Your task to perform on an android device: install app "Spotify" Image 0: 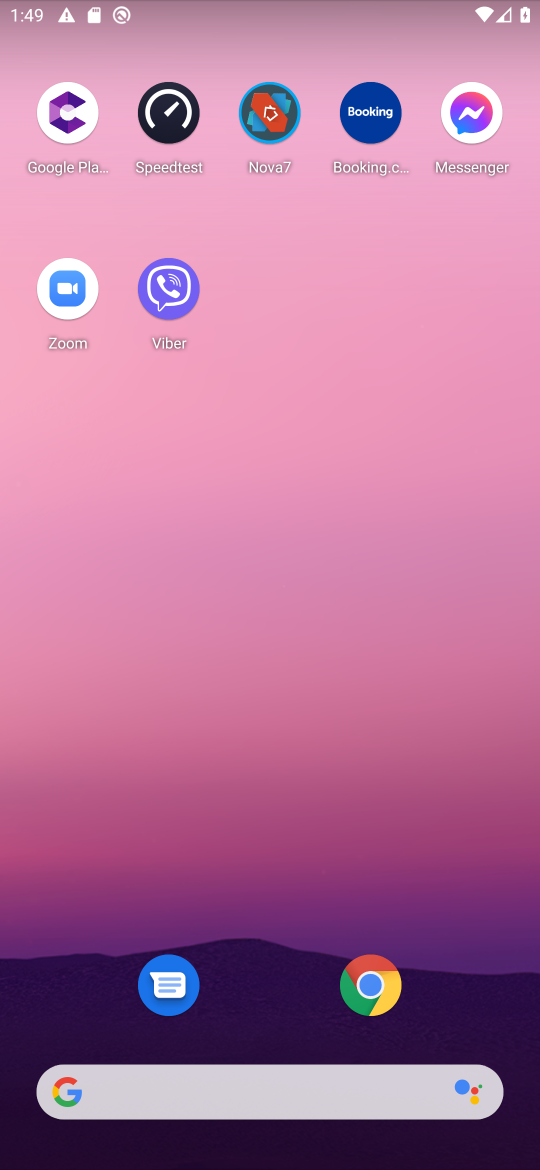
Step 0: drag from (273, 1140) to (307, 381)
Your task to perform on an android device: install app "Spotify" Image 1: 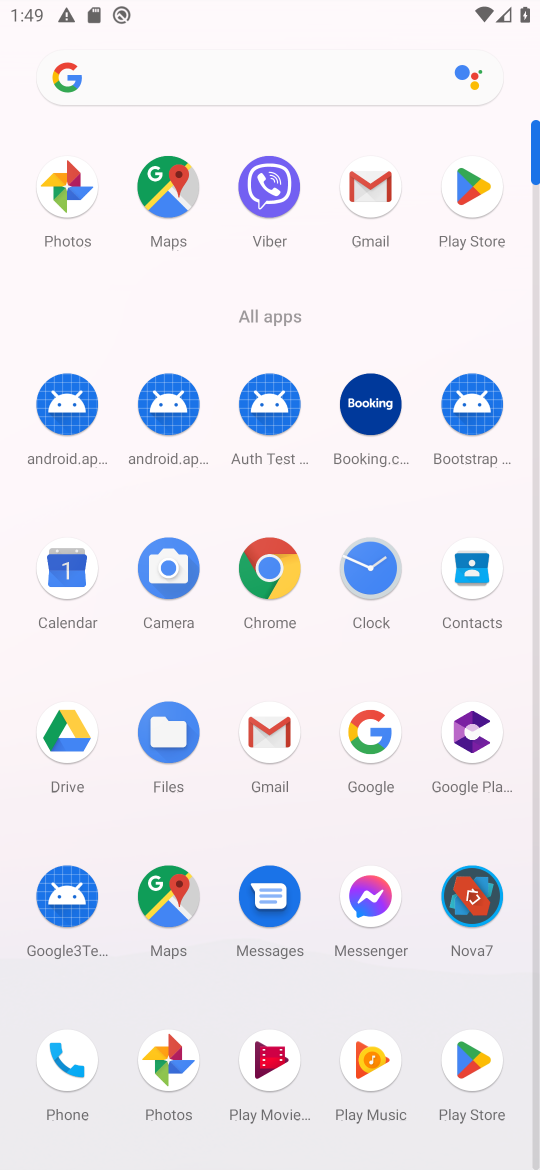
Step 1: click (477, 1047)
Your task to perform on an android device: install app "Spotify" Image 2: 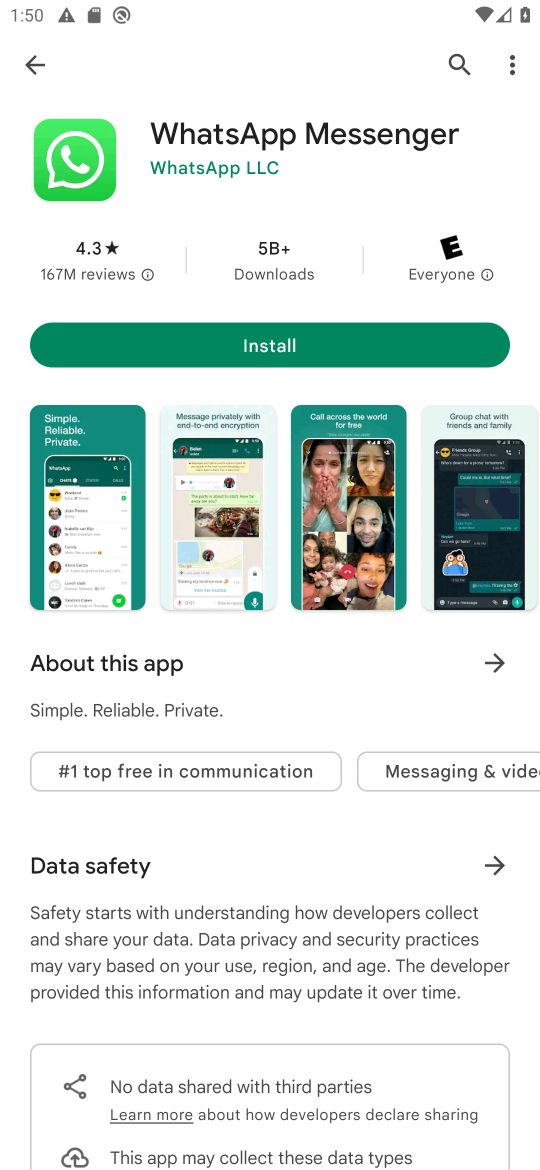
Step 2: click (460, 68)
Your task to perform on an android device: install app "Spotify" Image 3: 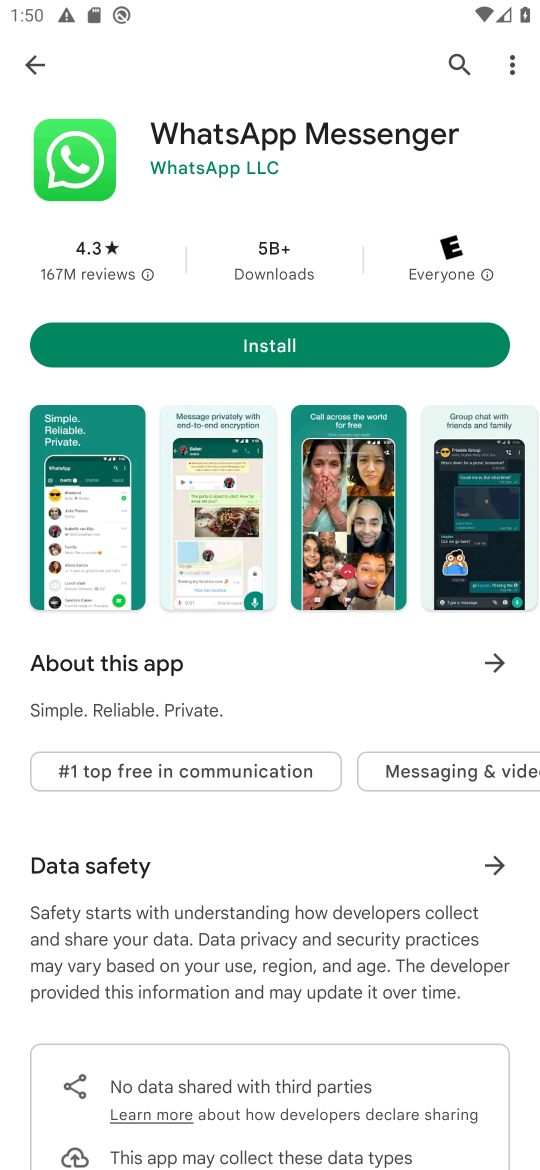
Step 3: click (465, 50)
Your task to perform on an android device: install app "Spotify" Image 4: 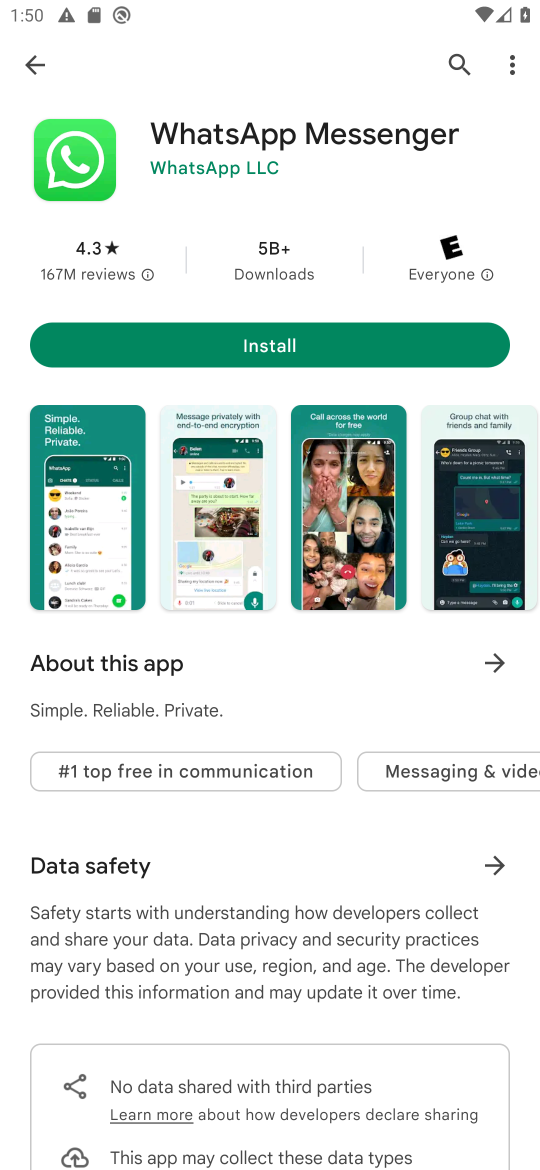
Step 4: click (456, 64)
Your task to perform on an android device: install app "Spotify" Image 5: 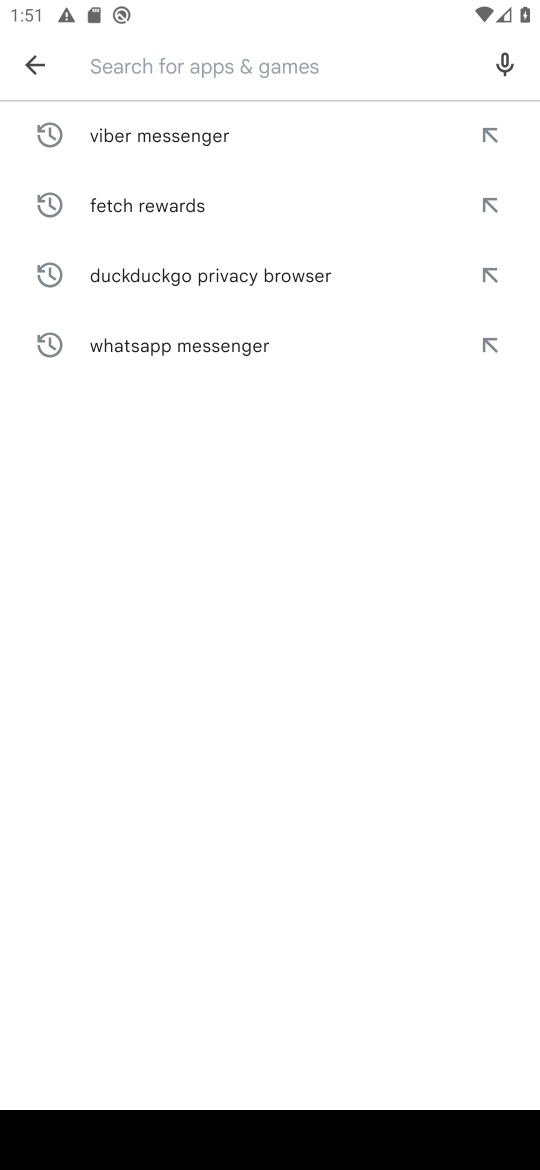
Step 5: type "spotify"
Your task to perform on an android device: install app "Spotify" Image 6: 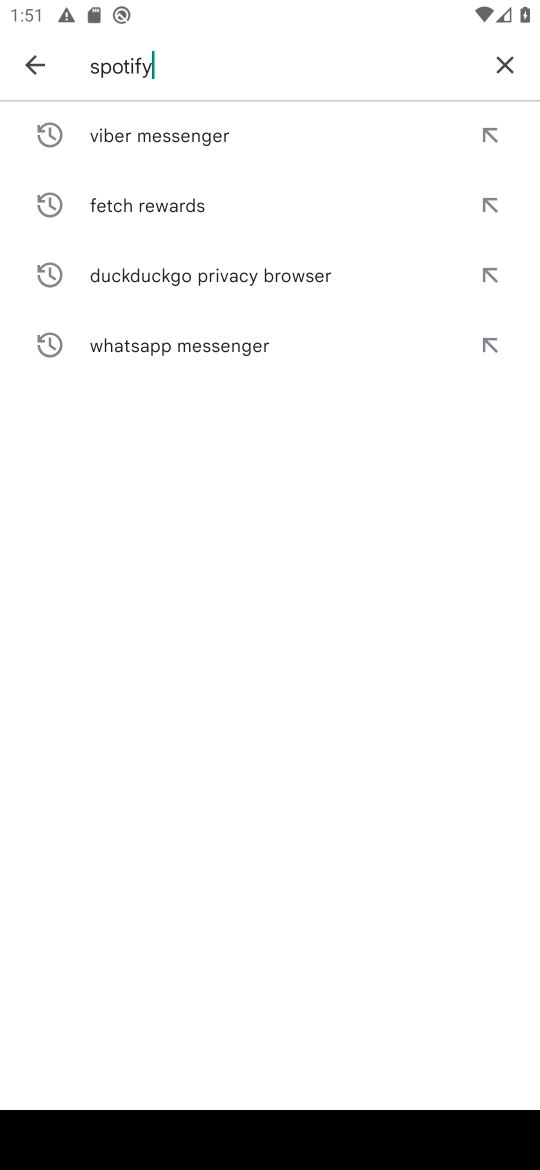
Step 6: type ""
Your task to perform on an android device: install app "Spotify" Image 7: 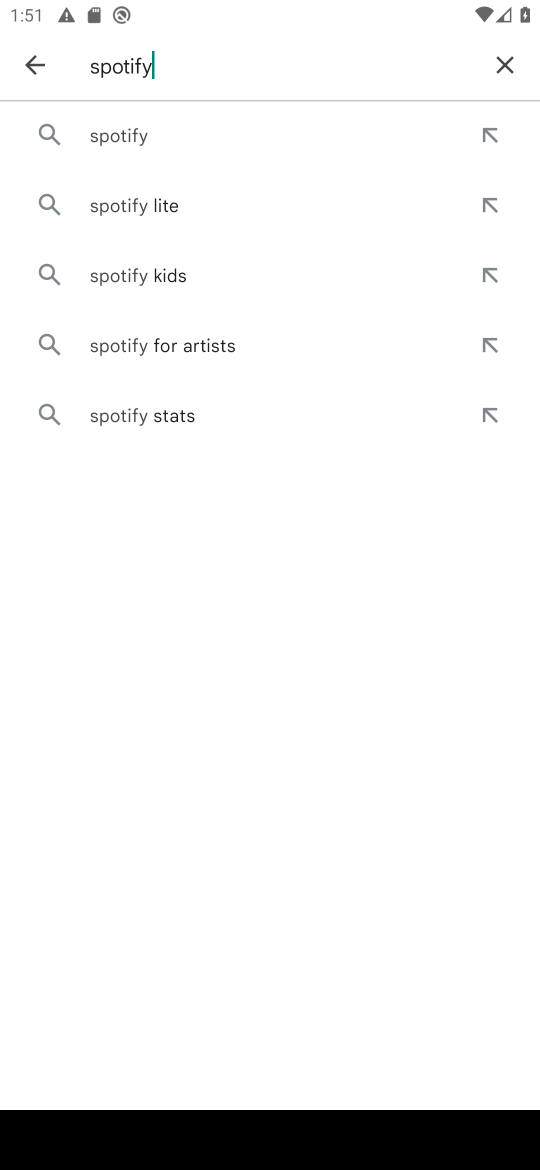
Step 7: click (117, 134)
Your task to perform on an android device: install app "Spotify" Image 8: 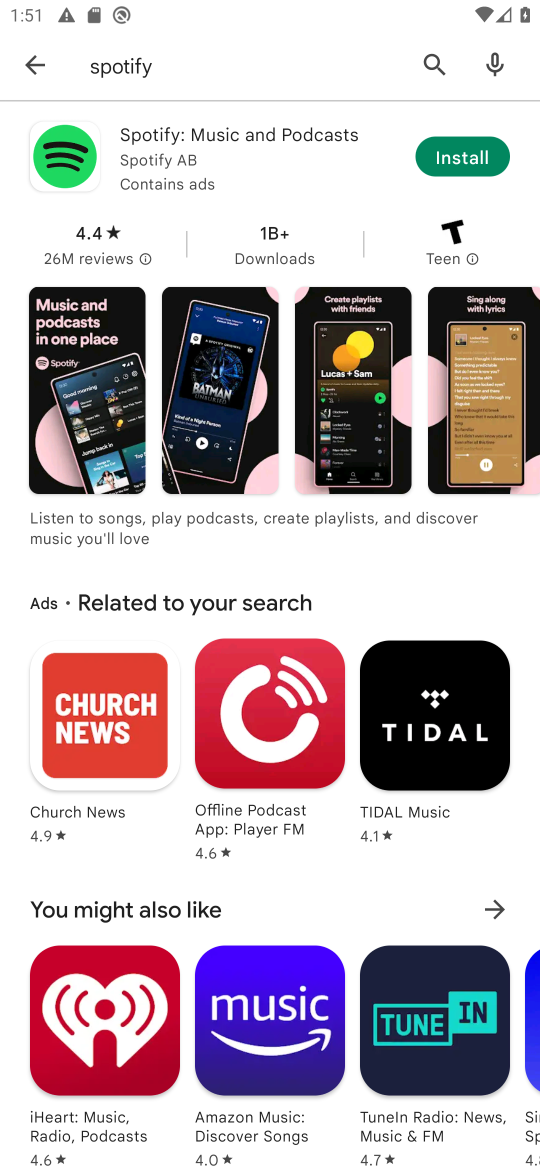
Step 8: click (461, 155)
Your task to perform on an android device: install app "Spotify" Image 9: 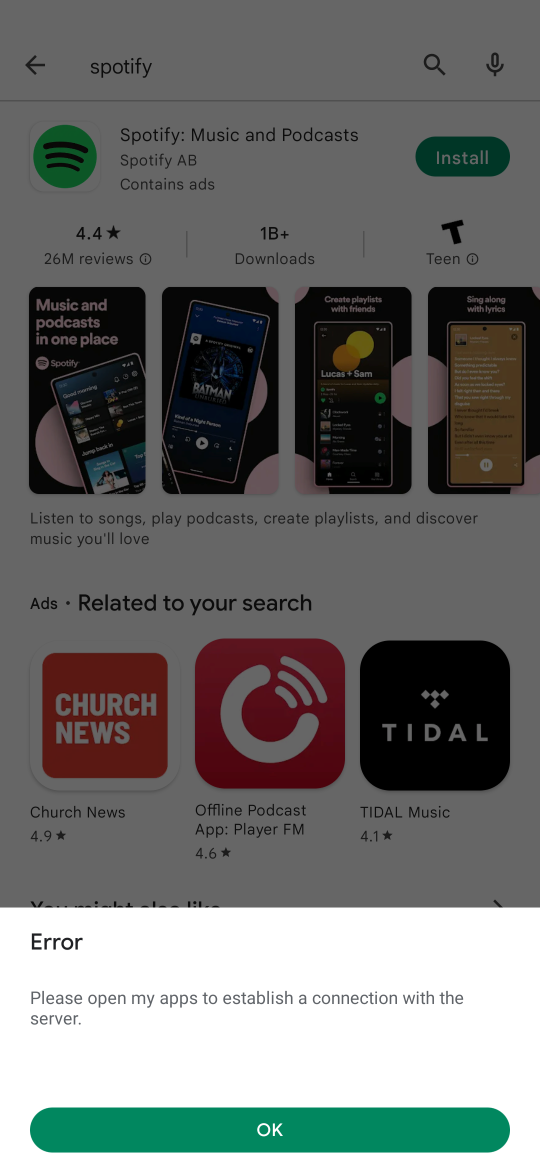
Step 9: click (277, 1124)
Your task to perform on an android device: install app "Spotify" Image 10: 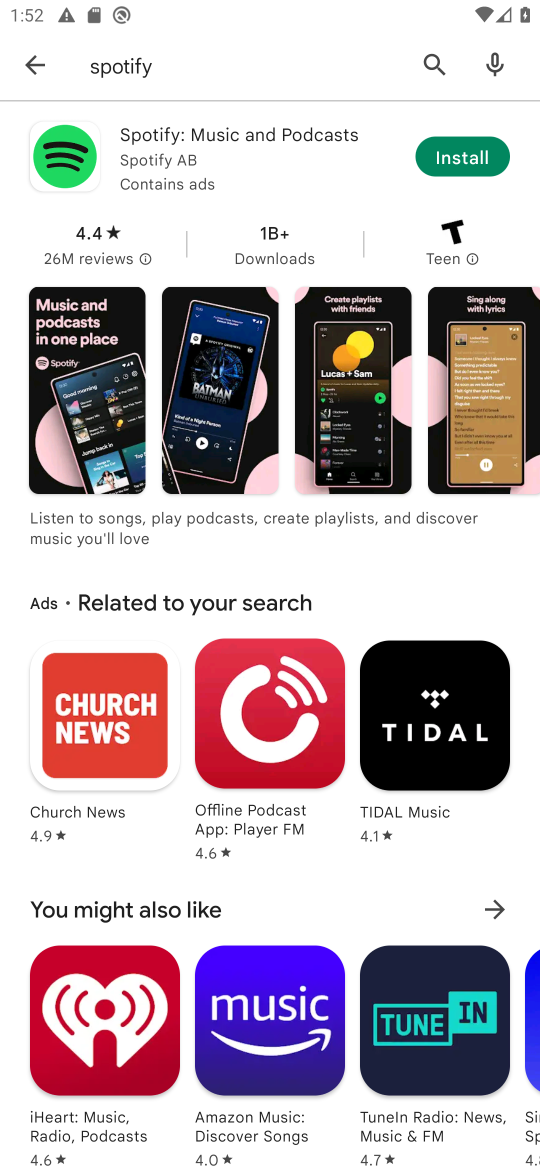
Step 10: click (464, 155)
Your task to perform on an android device: install app "Spotify" Image 11: 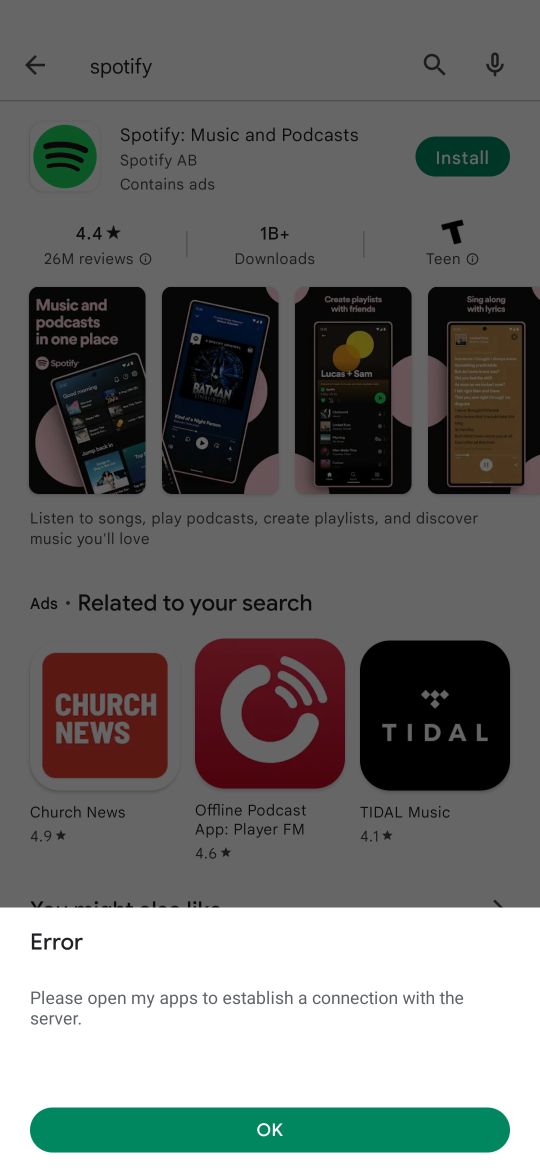
Step 11: click (297, 1137)
Your task to perform on an android device: install app "Spotify" Image 12: 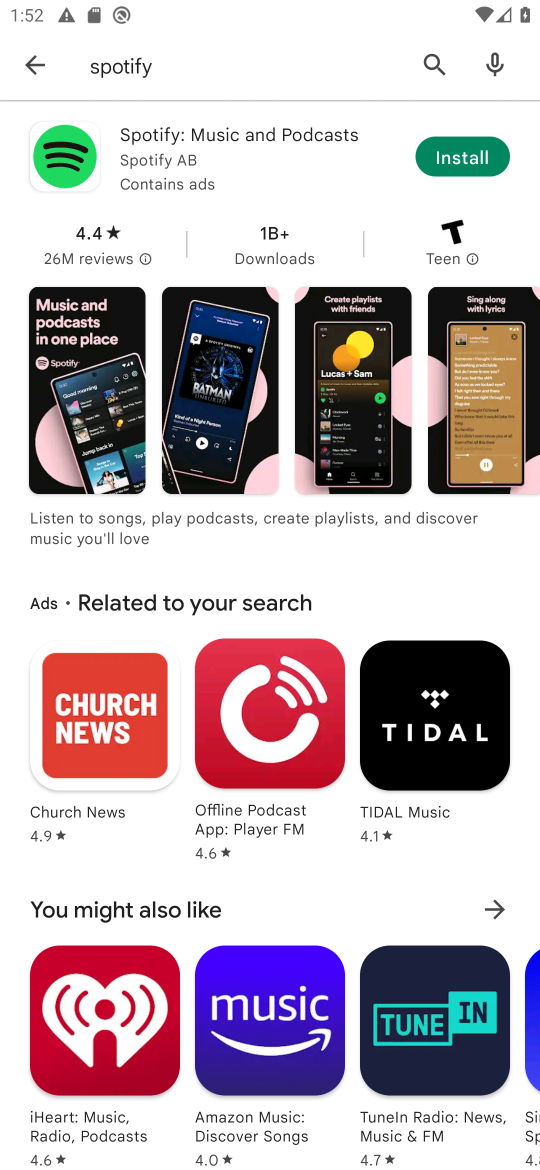
Step 12: click (478, 154)
Your task to perform on an android device: install app "Spotify" Image 13: 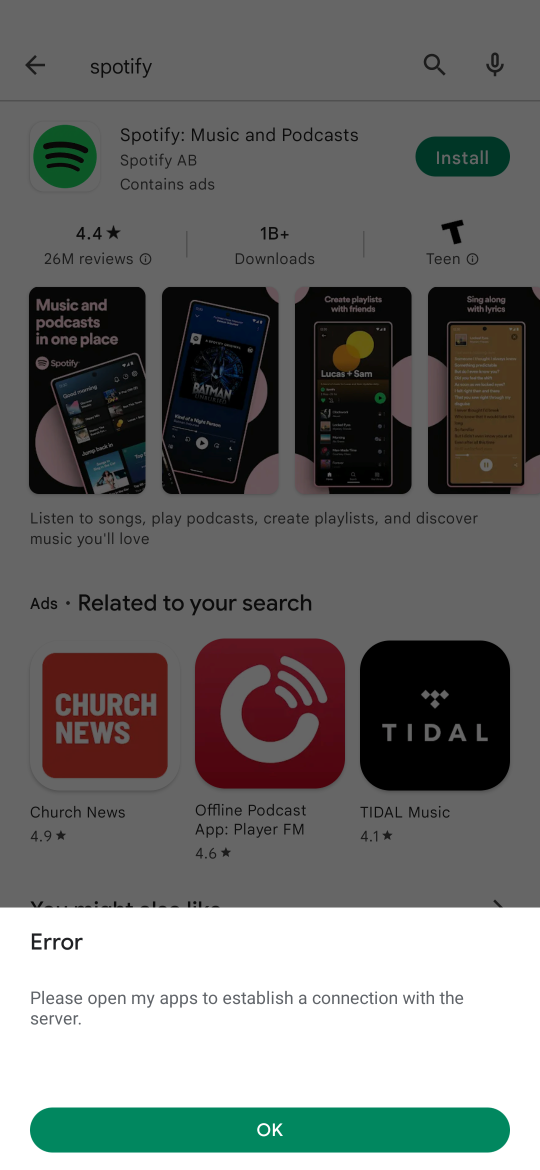
Step 13: click (270, 1130)
Your task to perform on an android device: install app "Spotify" Image 14: 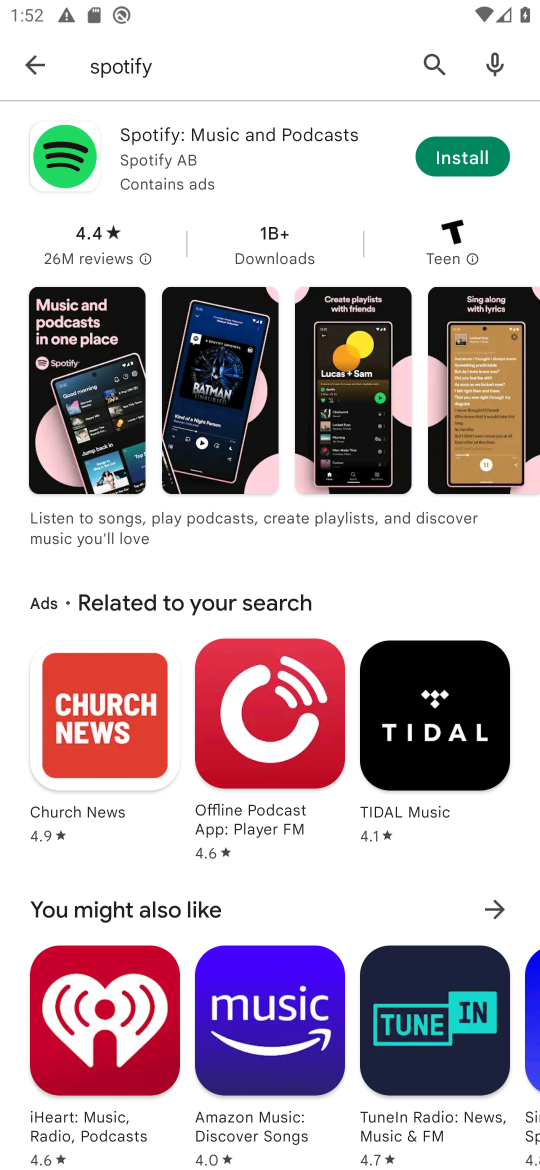
Step 14: task complete